Your task to perform on an android device: manage bookmarks in the chrome app Image 0: 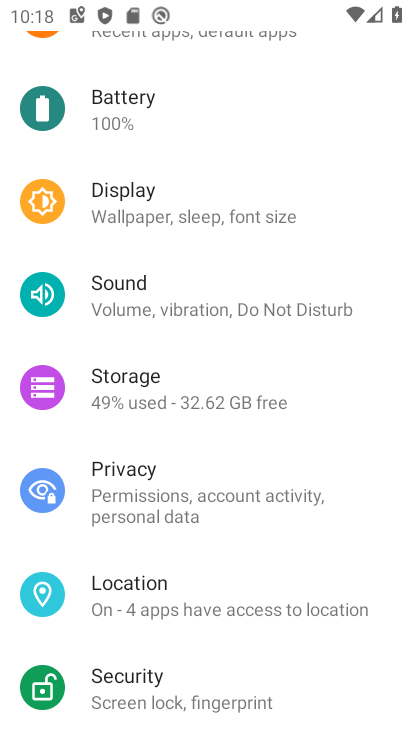
Step 0: press home button
Your task to perform on an android device: manage bookmarks in the chrome app Image 1: 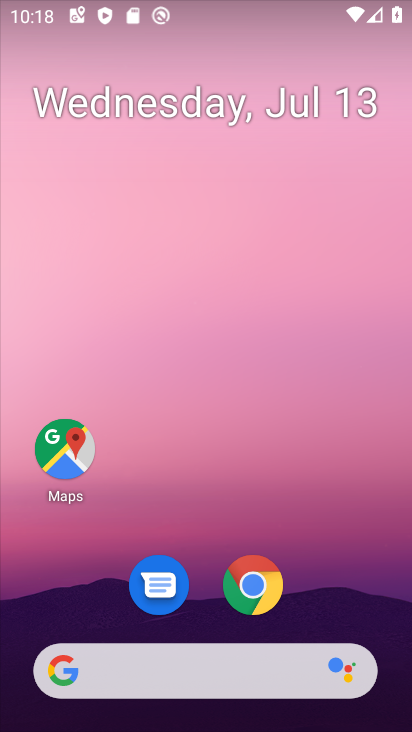
Step 1: click (265, 584)
Your task to perform on an android device: manage bookmarks in the chrome app Image 2: 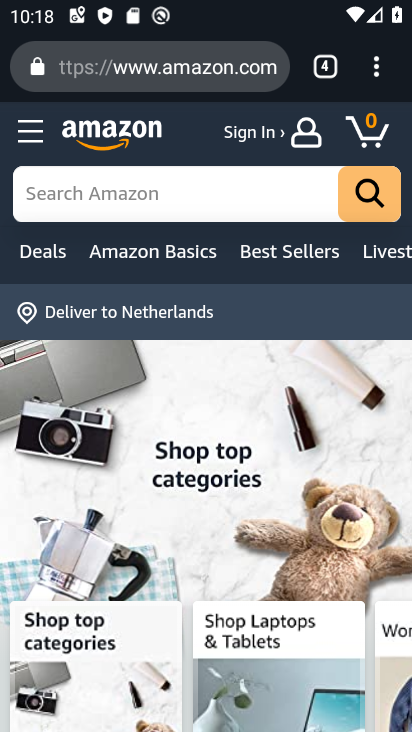
Step 2: click (374, 73)
Your task to perform on an android device: manage bookmarks in the chrome app Image 3: 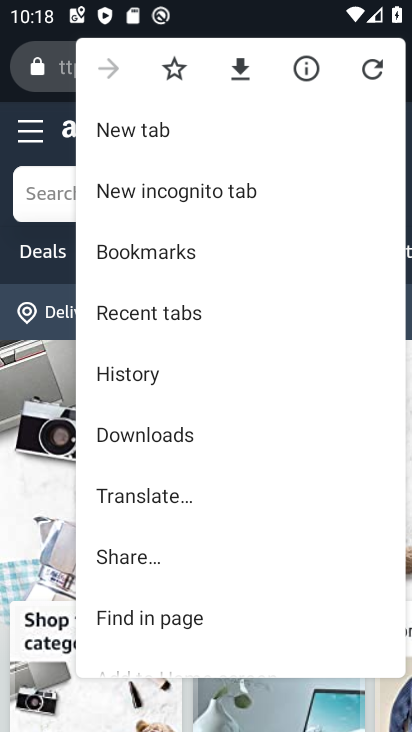
Step 3: click (191, 248)
Your task to perform on an android device: manage bookmarks in the chrome app Image 4: 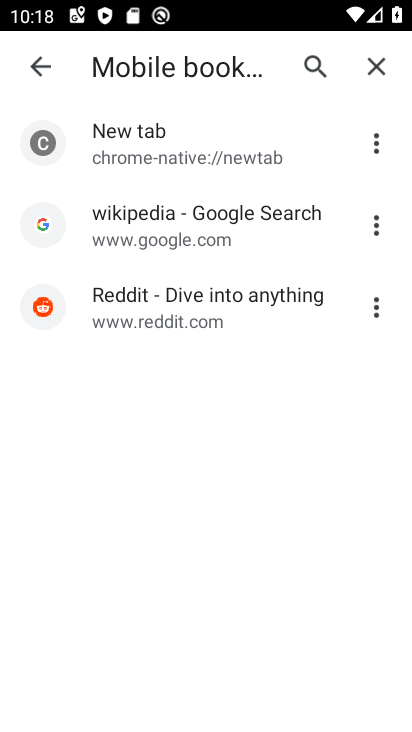
Step 4: click (375, 226)
Your task to perform on an android device: manage bookmarks in the chrome app Image 5: 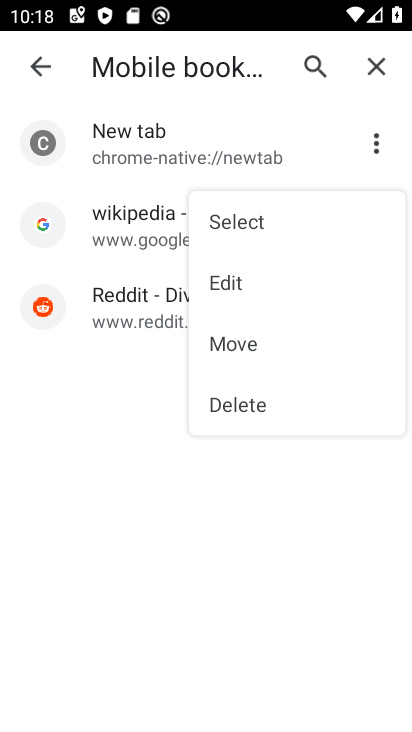
Step 5: click (231, 286)
Your task to perform on an android device: manage bookmarks in the chrome app Image 6: 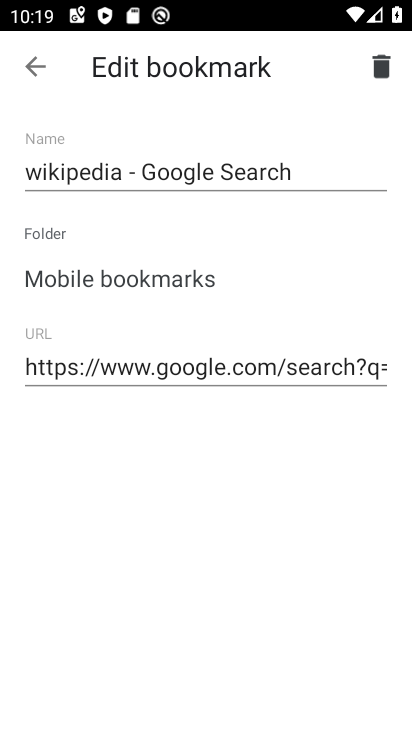
Step 6: task complete